Your task to perform on an android device: Open Chrome and go to the settings page Image 0: 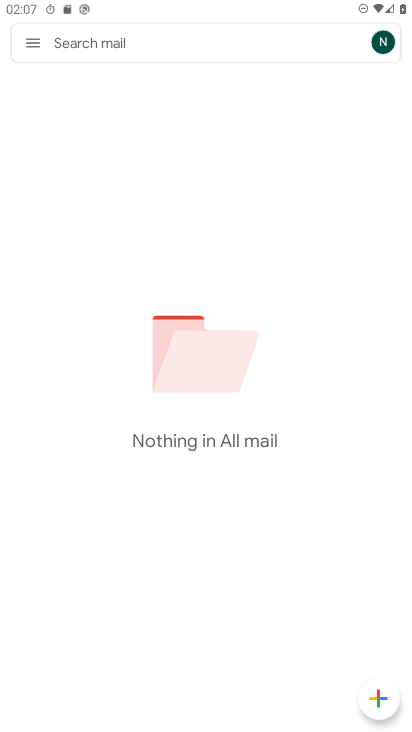
Step 0: press home button
Your task to perform on an android device: Open Chrome and go to the settings page Image 1: 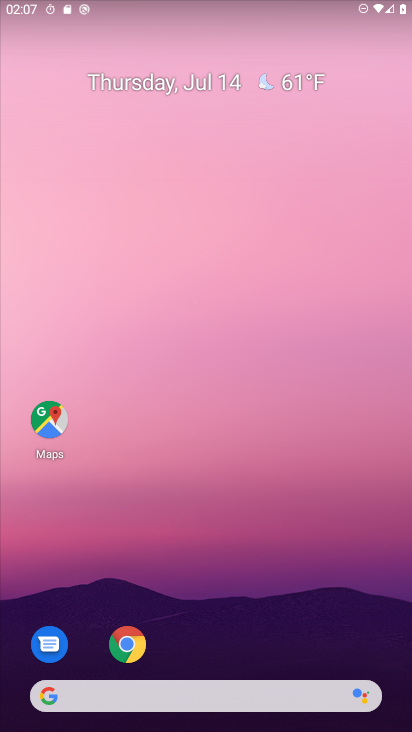
Step 1: drag from (349, 631) to (316, 176)
Your task to perform on an android device: Open Chrome and go to the settings page Image 2: 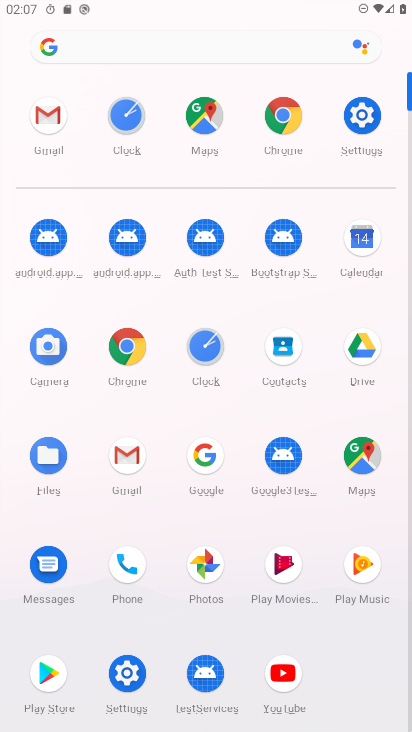
Step 2: click (130, 349)
Your task to perform on an android device: Open Chrome and go to the settings page Image 3: 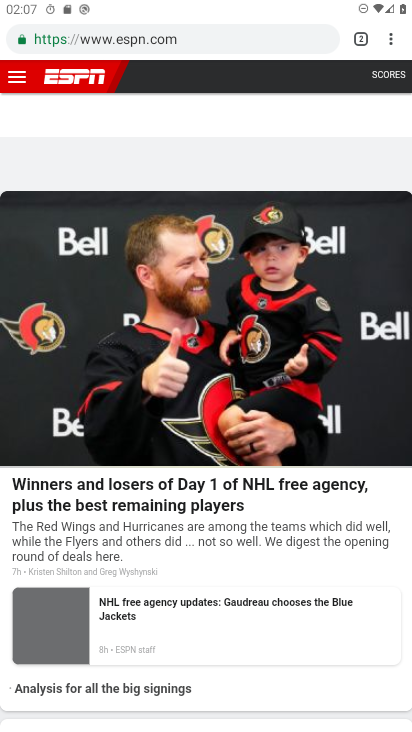
Step 3: task complete